Your task to perform on an android device: check storage Image 0: 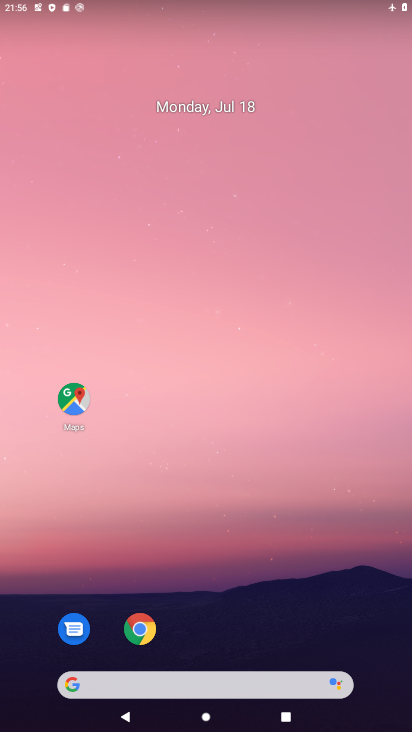
Step 0: drag from (362, 621) to (329, 127)
Your task to perform on an android device: check storage Image 1: 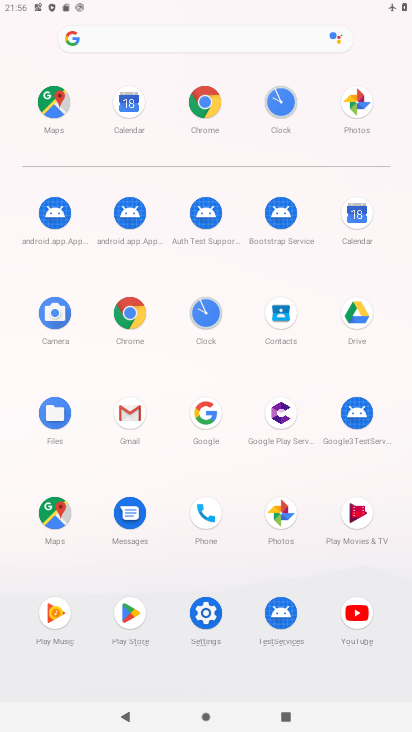
Step 1: click (208, 605)
Your task to perform on an android device: check storage Image 2: 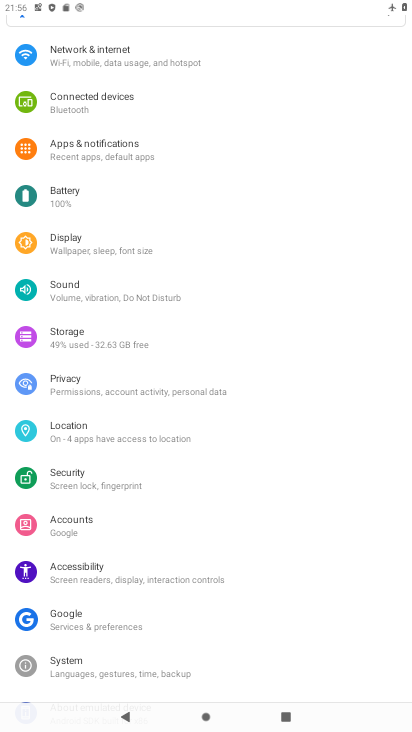
Step 2: click (123, 349)
Your task to perform on an android device: check storage Image 3: 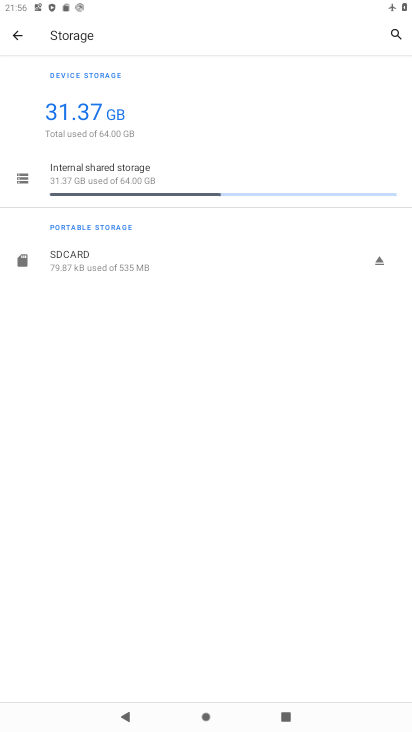
Step 3: task complete